Your task to perform on an android device: Go to display settings Image 0: 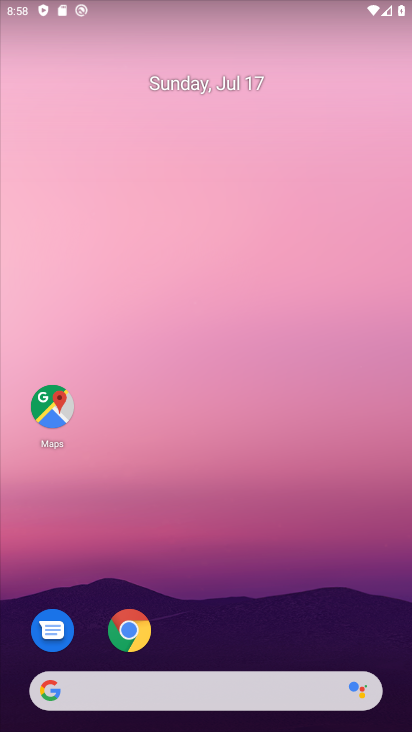
Step 0: drag from (223, 643) to (235, 343)
Your task to perform on an android device: Go to display settings Image 1: 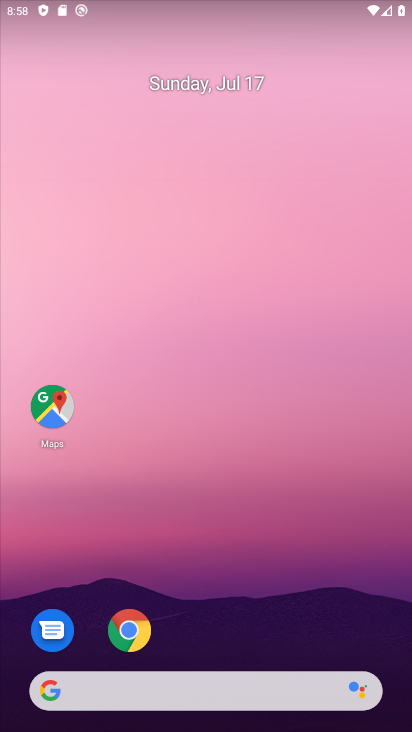
Step 1: drag from (231, 652) to (239, 298)
Your task to perform on an android device: Go to display settings Image 2: 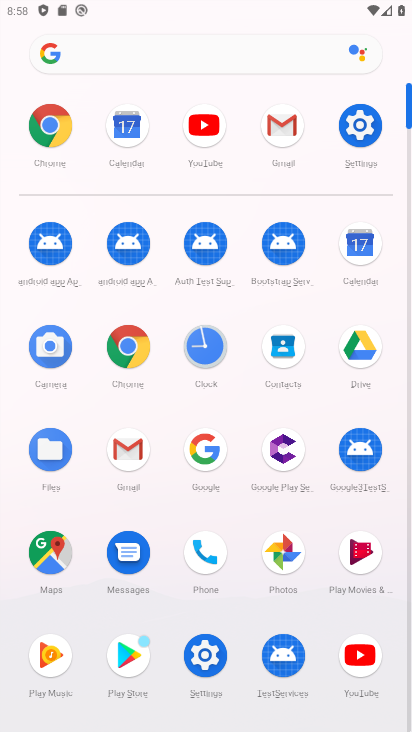
Step 2: click (352, 145)
Your task to perform on an android device: Go to display settings Image 3: 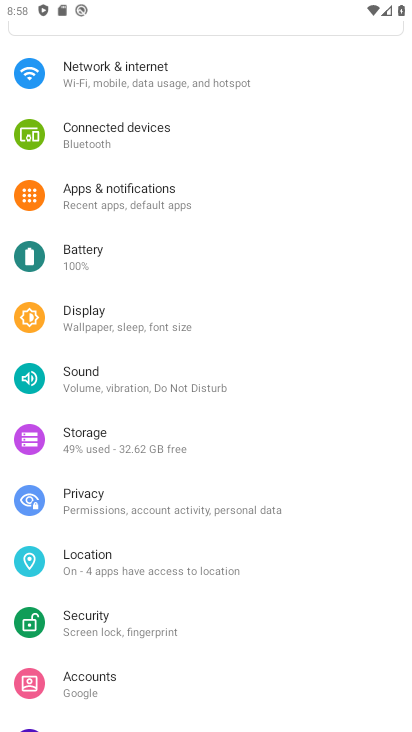
Step 3: click (173, 319)
Your task to perform on an android device: Go to display settings Image 4: 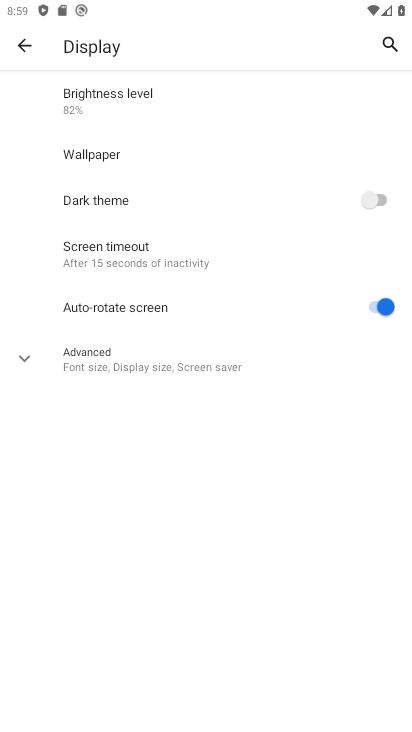
Step 4: task complete